Your task to perform on an android device: Go to Yahoo.com Image 0: 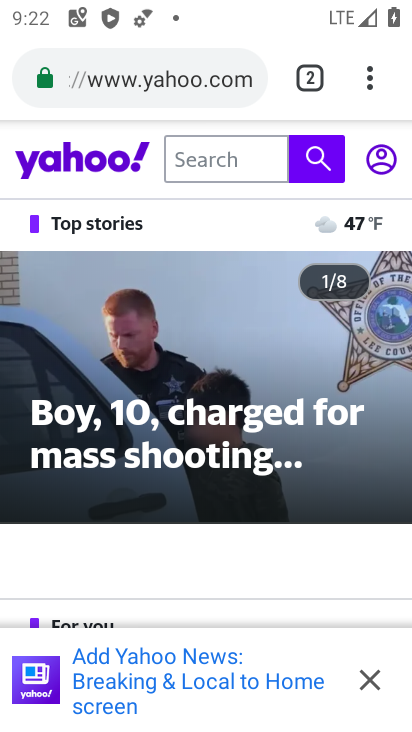
Step 0: task complete